Your task to perform on an android device: turn on location history Image 0: 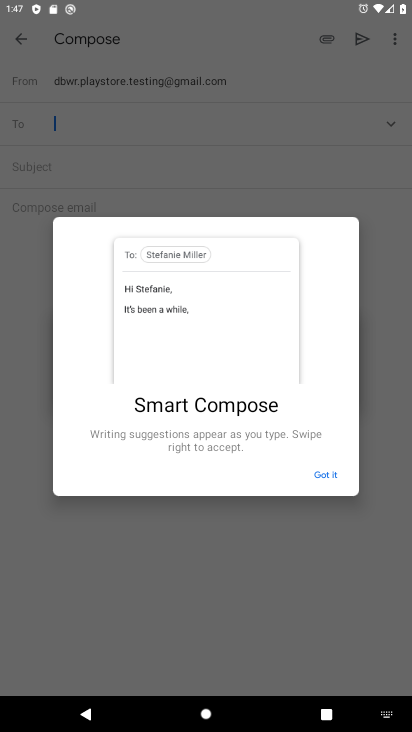
Step 0: press home button
Your task to perform on an android device: turn on location history Image 1: 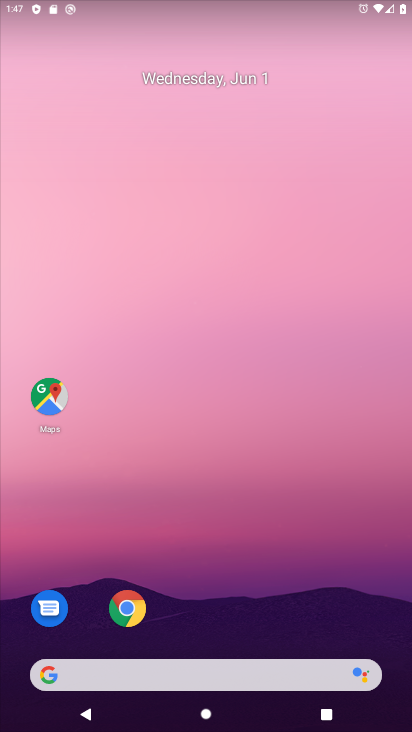
Step 1: drag from (158, 632) to (301, 135)
Your task to perform on an android device: turn on location history Image 2: 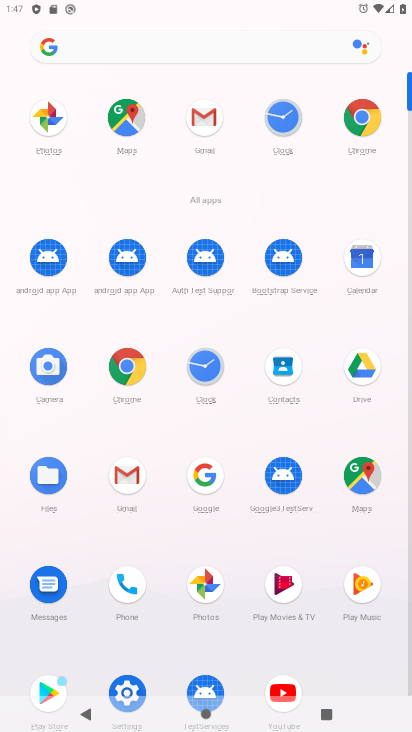
Step 2: click (133, 691)
Your task to perform on an android device: turn on location history Image 3: 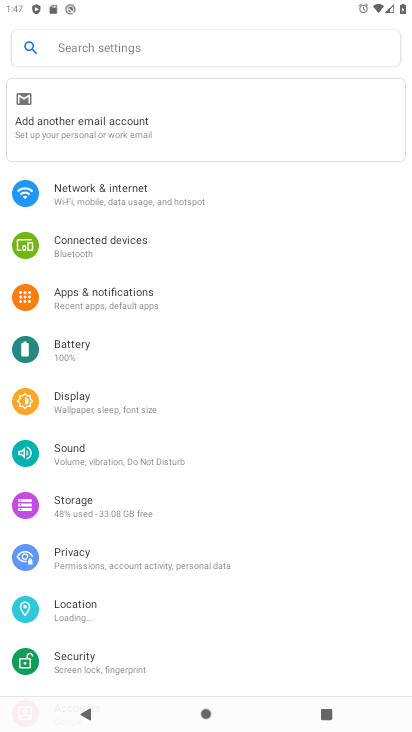
Step 3: drag from (176, 592) to (246, 301)
Your task to perform on an android device: turn on location history Image 4: 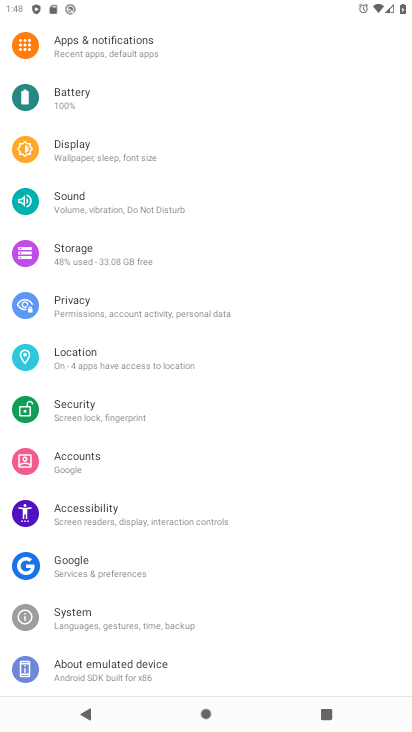
Step 4: click (119, 371)
Your task to perform on an android device: turn on location history Image 5: 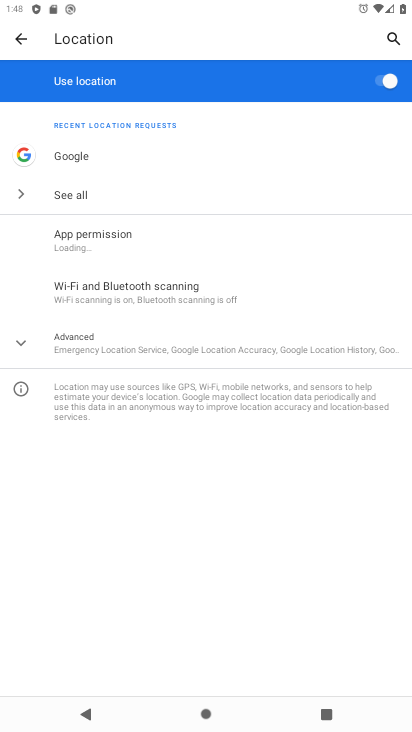
Step 5: click (169, 346)
Your task to perform on an android device: turn on location history Image 6: 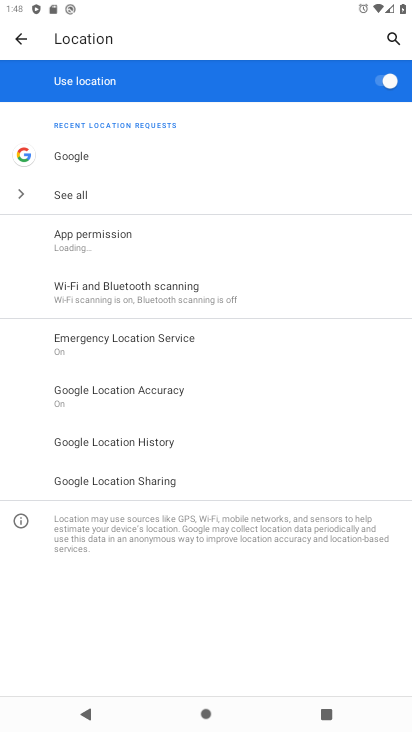
Step 6: click (156, 438)
Your task to perform on an android device: turn on location history Image 7: 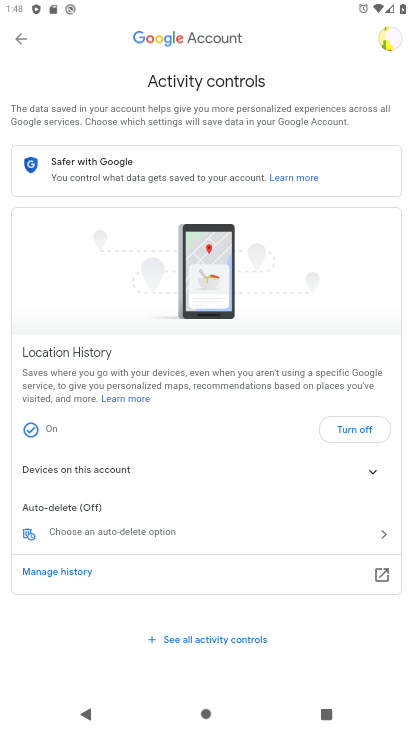
Step 7: task complete